Your task to perform on an android device: turn off location history Image 0: 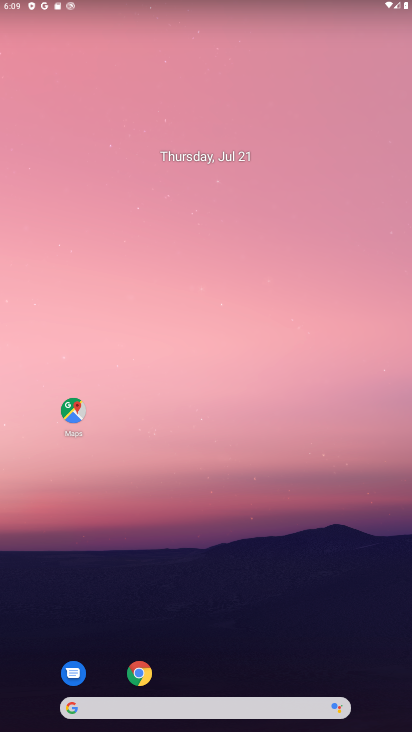
Step 0: drag from (175, 508) to (222, 130)
Your task to perform on an android device: turn off location history Image 1: 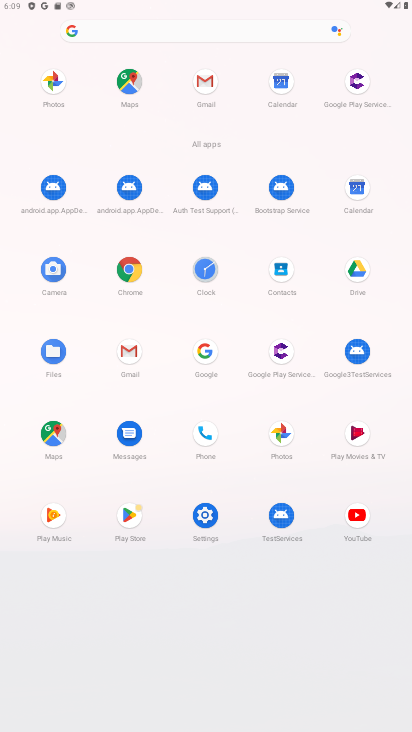
Step 1: click (209, 530)
Your task to perform on an android device: turn off location history Image 2: 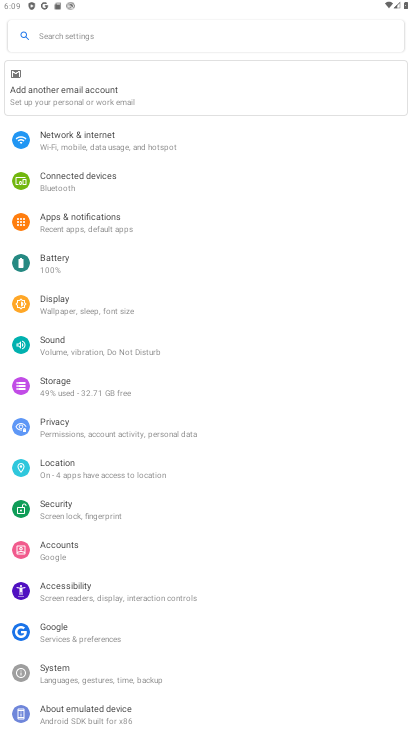
Step 2: click (79, 467)
Your task to perform on an android device: turn off location history Image 3: 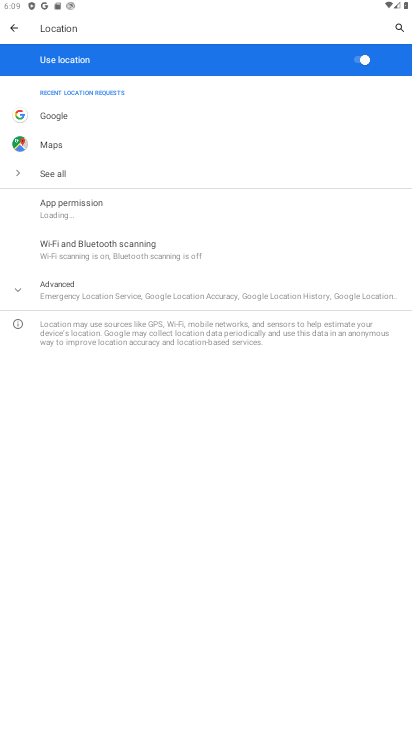
Step 3: click (64, 299)
Your task to perform on an android device: turn off location history Image 4: 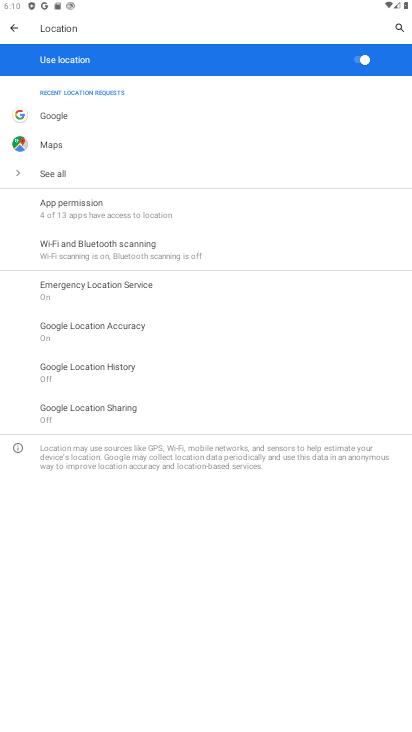
Step 4: click (86, 367)
Your task to perform on an android device: turn off location history Image 5: 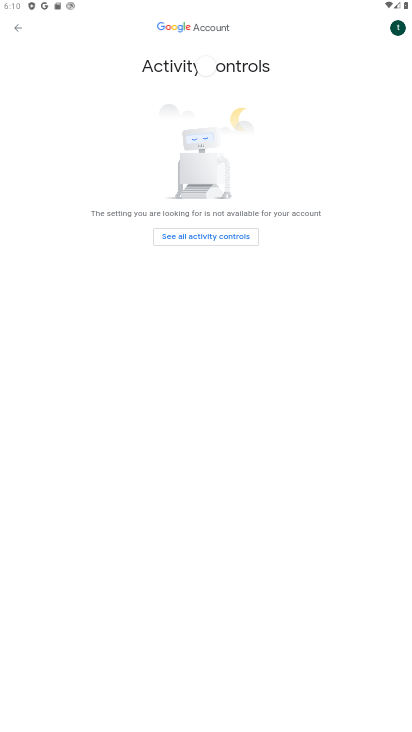
Step 5: click (217, 234)
Your task to perform on an android device: turn off location history Image 6: 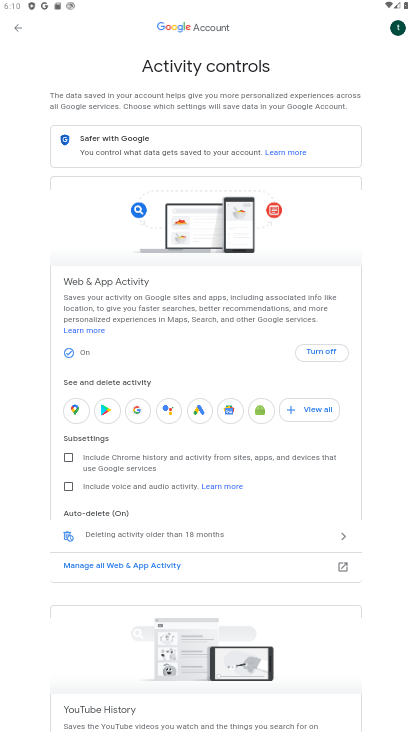
Step 6: click (318, 355)
Your task to perform on an android device: turn off location history Image 7: 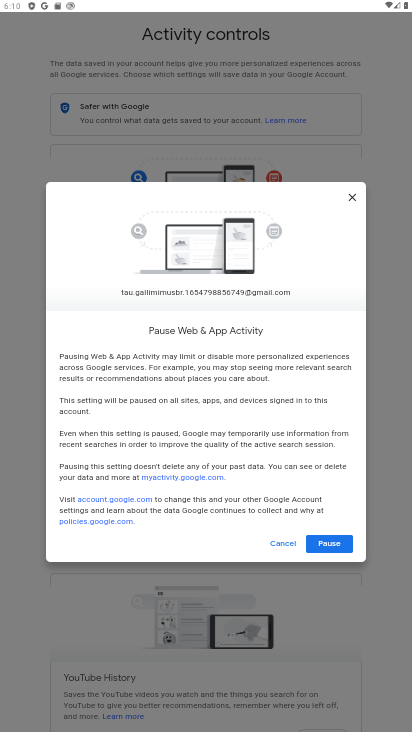
Step 7: click (323, 544)
Your task to perform on an android device: turn off location history Image 8: 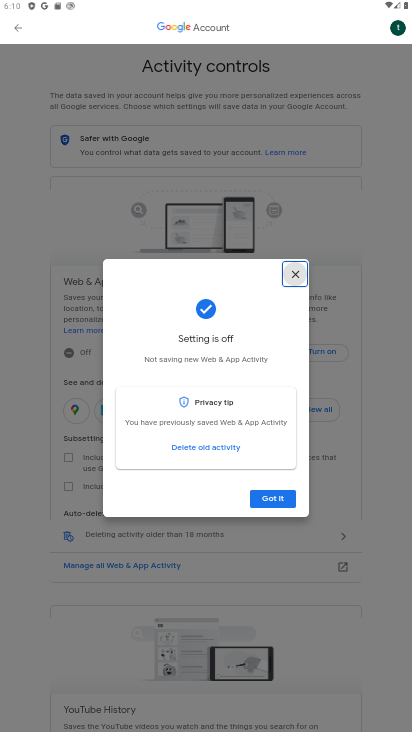
Step 8: click (265, 498)
Your task to perform on an android device: turn off location history Image 9: 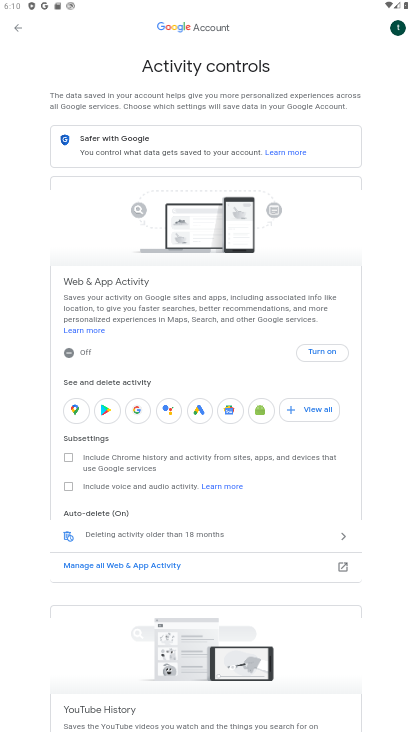
Step 9: task complete